Your task to perform on an android device: open a bookmark in the chrome app Image 0: 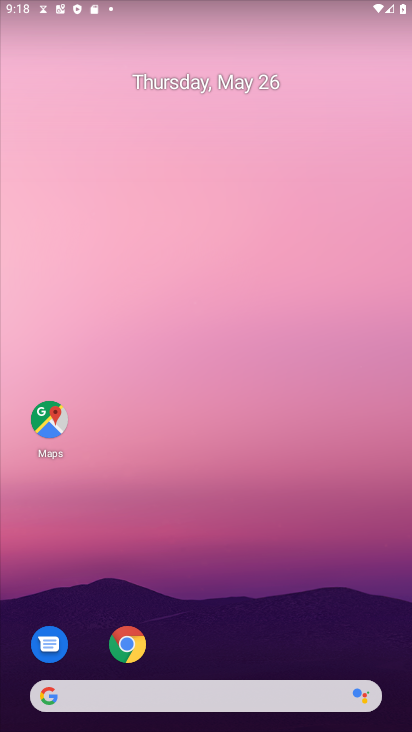
Step 0: click (129, 643)
Your task to perform on an android device: open a bookmark in the chrome app Image 1: 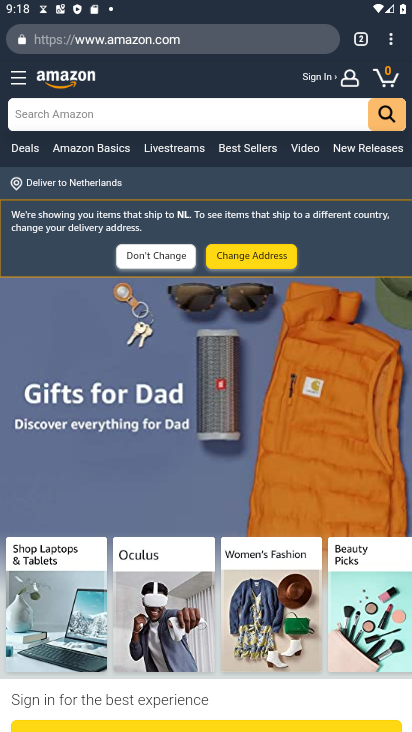
Step 1: drag from (396, 36) to (265, 200)
Your task to perform on an android device: open a bookmark in the chrome app Image 2: 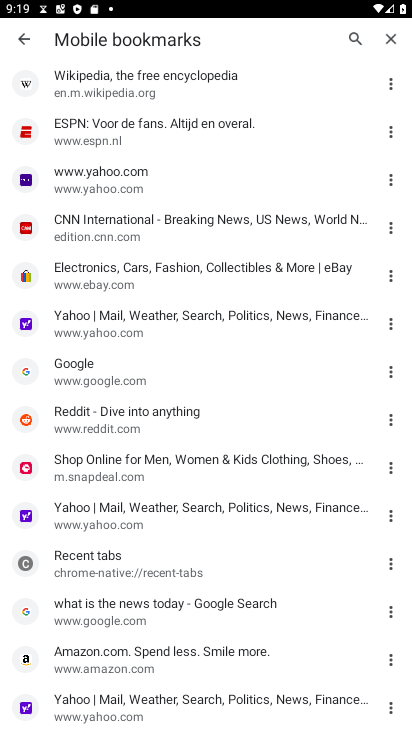
Step 2: click (104, 171)
Your task to perform on an android device: open a bookmark in the chrome app Image 3: 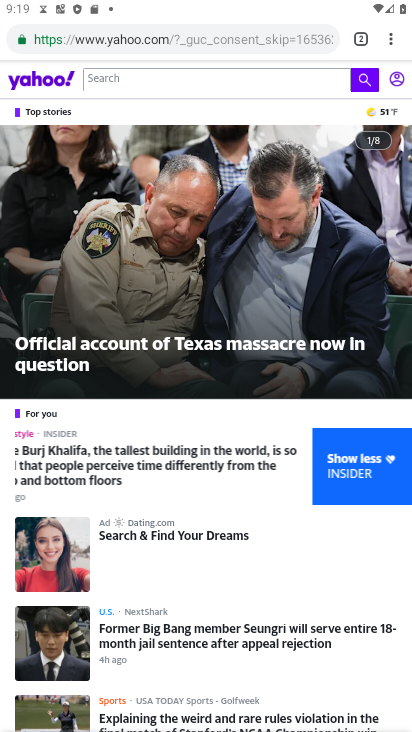
Step 3: task complete